Your task to perform on an android device: Go to battery settings Image 0: 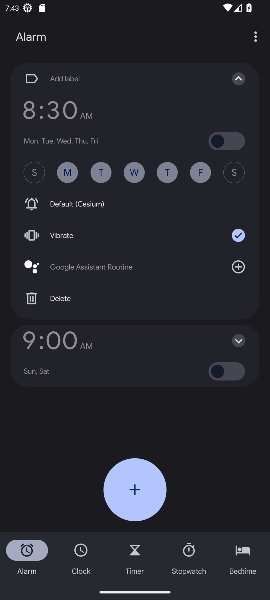
Step 0: press home button
Your task to perform on an android device: Go to battery settings Image 1: 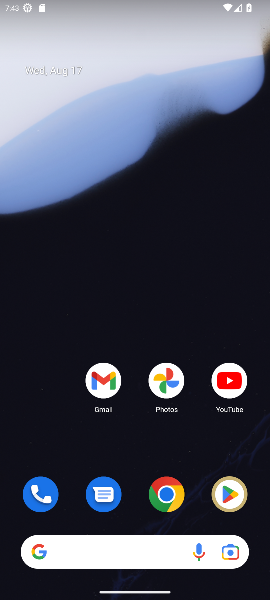
Step 1: drag from (150, 483) to (134, 18)
Your task to perform on an android device: Go to battery settings Image 2: 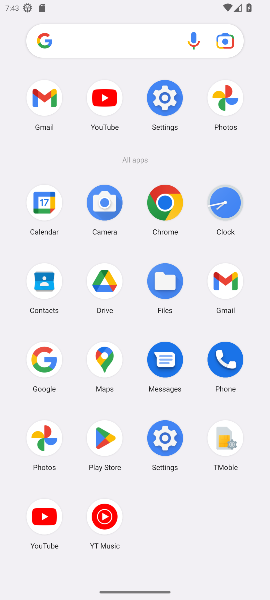
Step 2: click (160, 100)
Your task to perform on an android device: Go to battery settings Image 3: 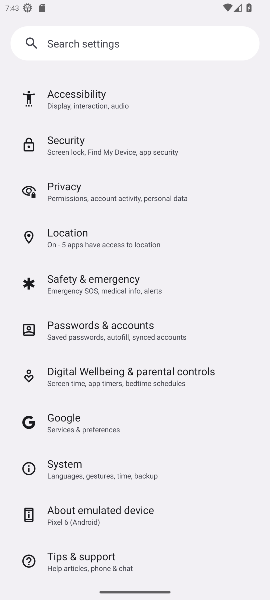
Step 3: drag from (105, 536) to (146, 159)
Your task to perform on an android device: Go to battery settings Image 4: 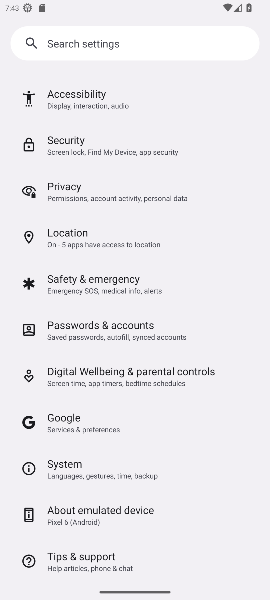
Step 4: drag from (76, 202) to (115, 531)
Your task to perform on an android device: Go to battery settings Image 5: 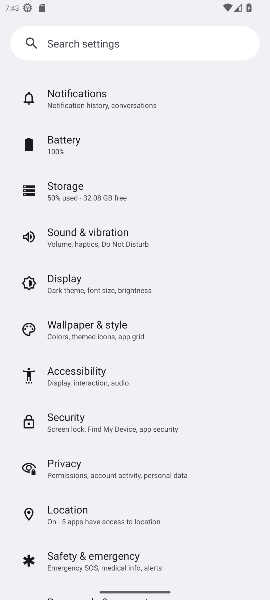
Step 5: drag from (73, 187) to (155, 517)
Your task to perform on an android device: Go to battery settings Image 6: 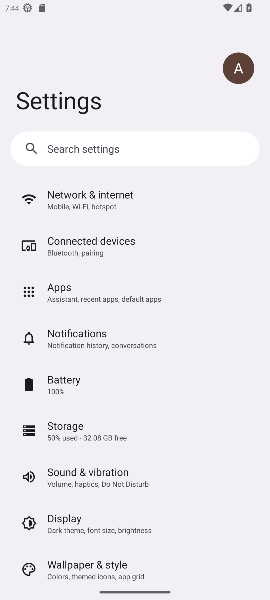
Step 6: click (68, 392)
Your task to perform on an android device: Go to battery settings Image 7: 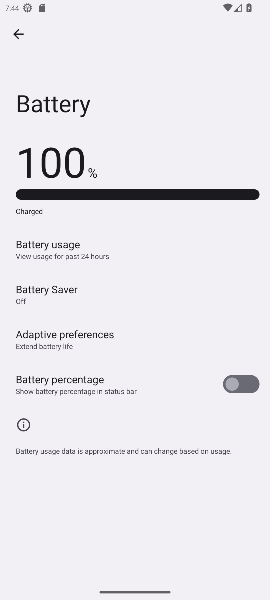
Step 7: task complete